Your task to perform on an android device: turn off location history Image 0: 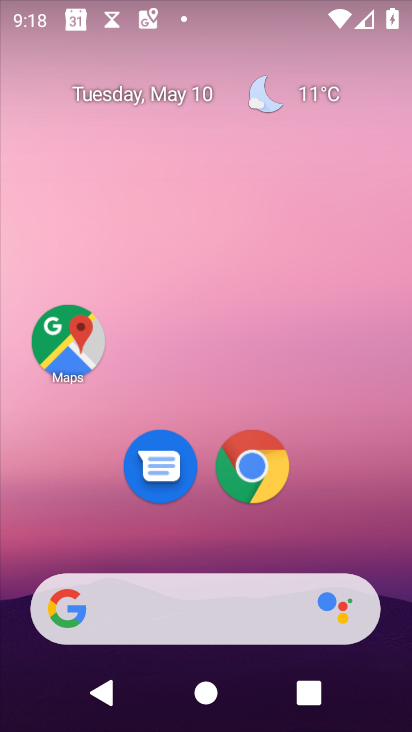
Step 0: drag from (302, 536) to (315, 54)
Your task to perform on an android device: turn off location history Image 1: 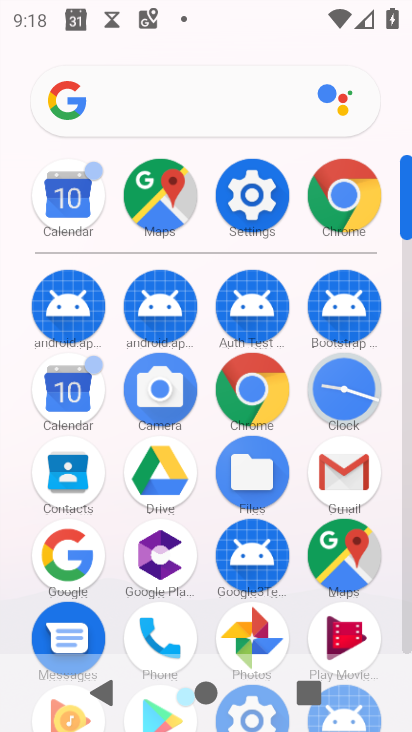
Step 1: click (237, 196)
Your task to perform on an android device: turn off location history Image 2: 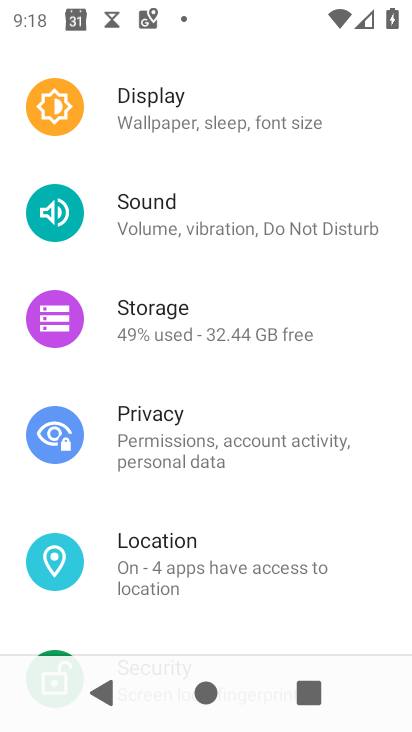
Step 2: click (191, 554)
Your task to perform on an android device: turn off location history Image 3: 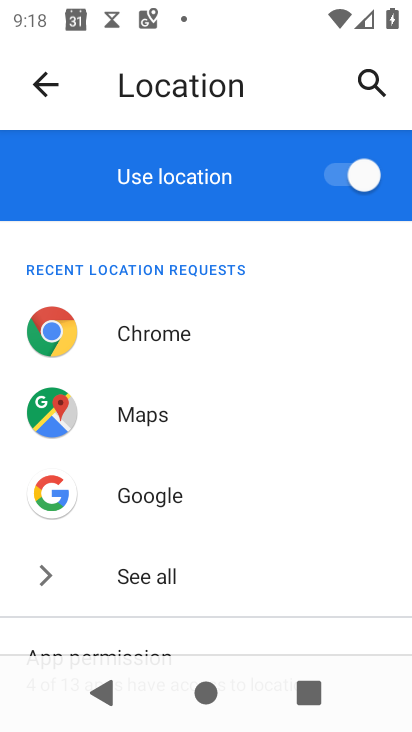
Step 3: drag from (184, 531) to (218, 338)
Your task to perform on an android device: turn off location history Image 4: 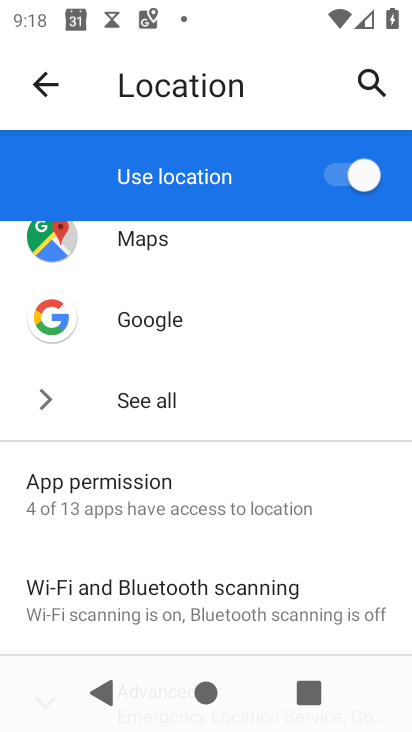
Step 4: drag from (162, 503) to (178, 352)
Your task to perform on an android device: turn off location history Image 5: 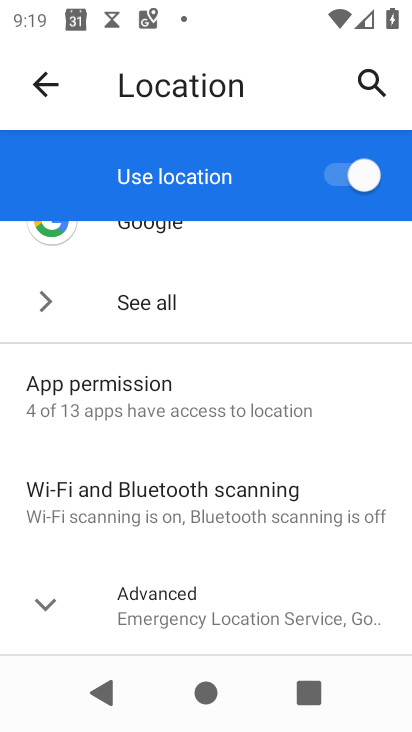
Step 5: click (189, 597)
Your task to perform on an android device: turn off location history Image 6: 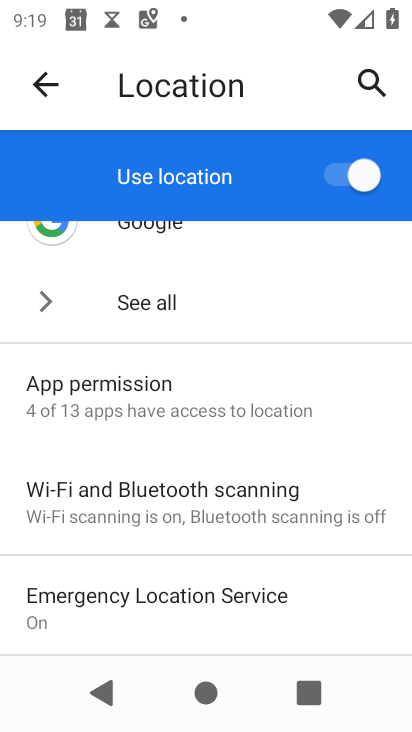
Step 6: drag from (173, 612) to (165, 422)
Your task to perform on an android device: turn off location history Image 7: 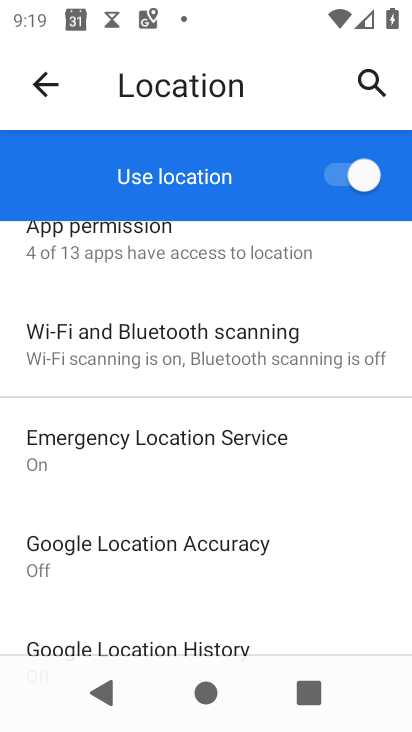
Step 7: drag from (149, 563) to (183, 410)
Your task to perform on an android device: turn off location history Image 8: 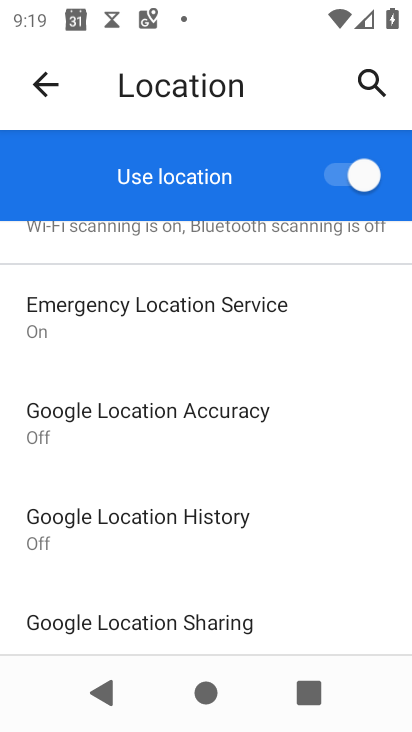
Step 8: click (149, 508)
Your task to perform on an android device: turn off location history Image 9: 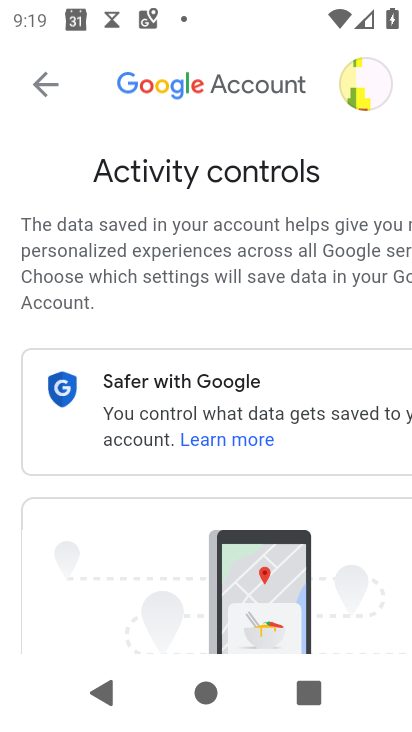
Step 9: drag from (227, 614) to (312, 288)
Your task to perform on an android device: turn off location history Image 10: 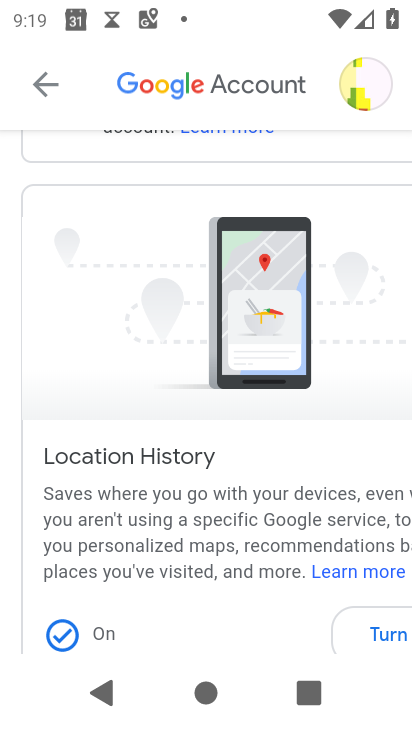
Step 10: drag from (372, 550) to (369, 184)
Your task to perform on an android device: turn off location history Image 11: 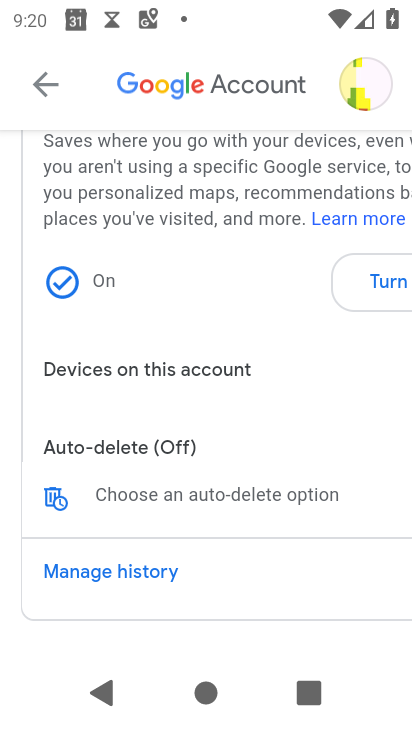
Step 11: click (371, 284)
Your task to perform on an android device: turn off location history Image 12: 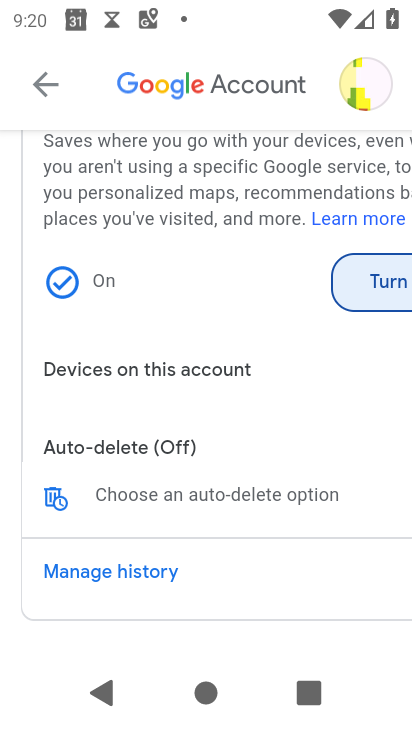
Step 12: click (359, 293)
Your task to perform on an android device: turn off location history Image 13: 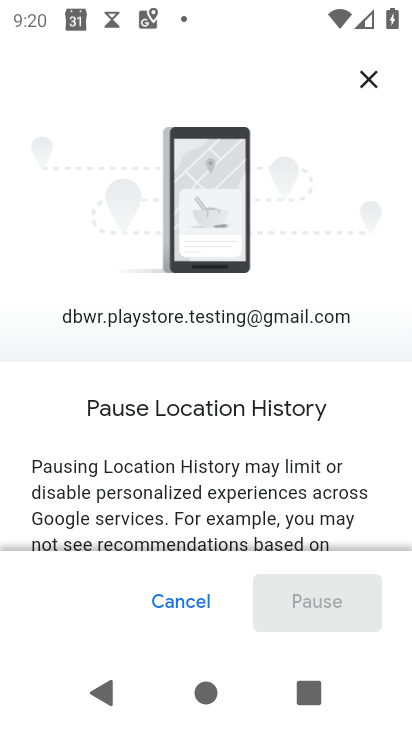
Step 13: drag from (332, 453) to (339, 269)
Your task to perform on an android device: turn off location history Image 14: 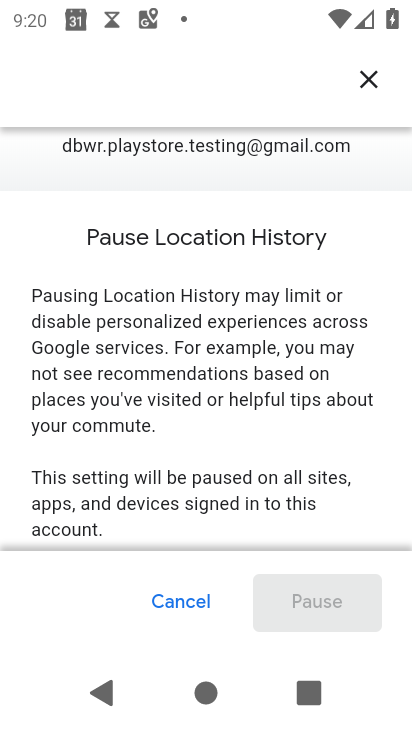
Step 14: drag from (316, 434) to (321, 333)
Your task to perform on an android device: turn off location history Image 15: 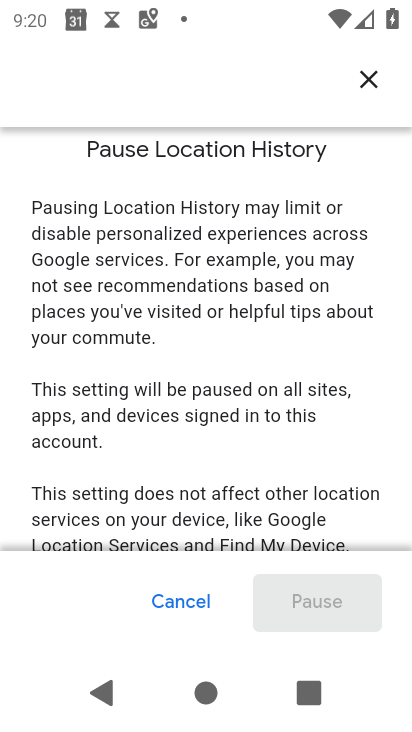
Step 15: drag from (284, 486) to (326, 292)
Your task to perform on an android device: turn off location history Image 16: 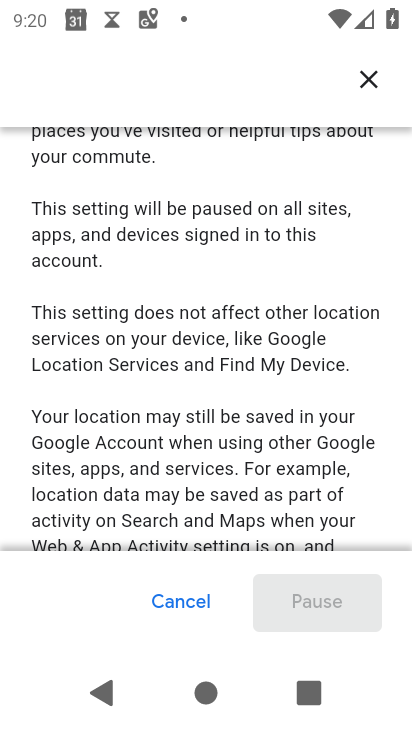
Step 16: drag from (300, 477) to (325, 222)
Your task to perform on an android device: turn off location history Image 17: 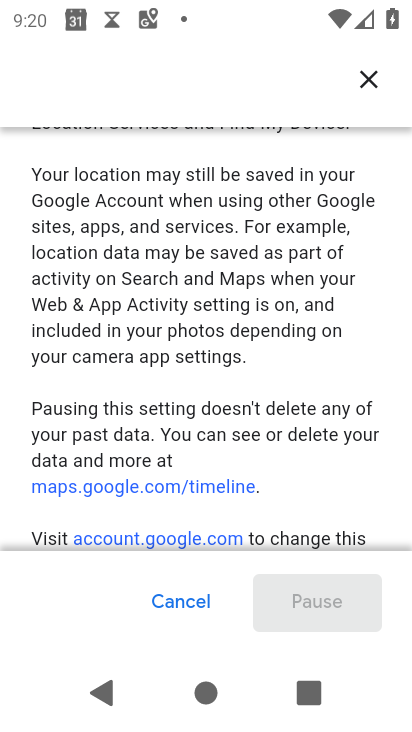
Step 17: drag from (322, 429) to (348, 233)
Your task to perform on an android device: turn off location history Image 18: 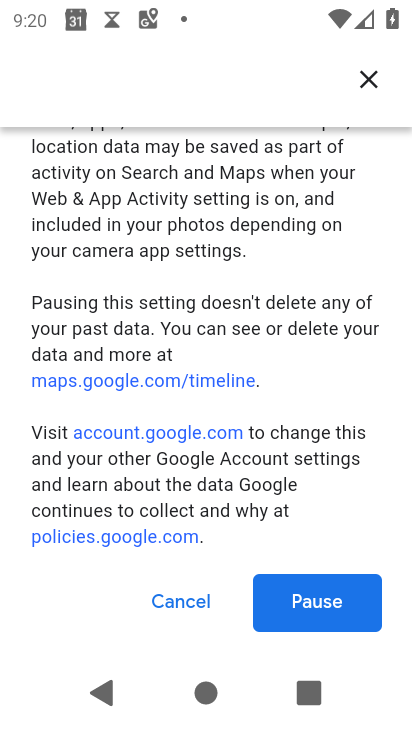
Step 18: click (336, 596)
Your task to perform on an android device: turn off location history Image 19: 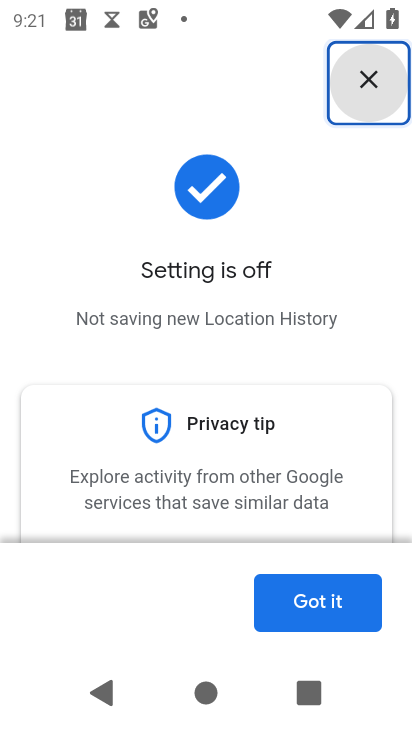
Step 19: click (334, 603)
Your task to perform on an android device: turn off location history Image 20: 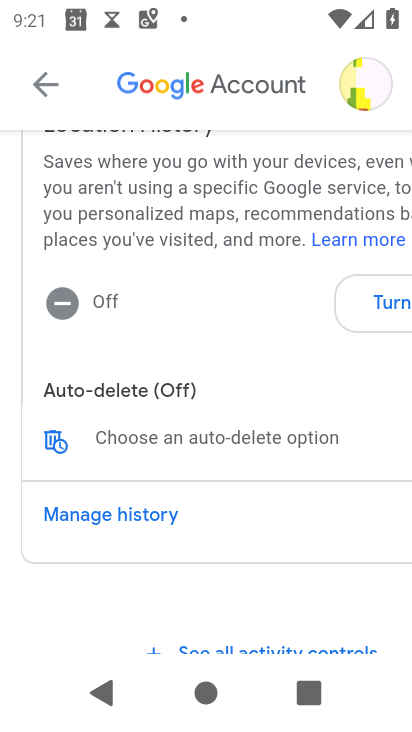
Step 20: task complete